Your task to perform on an android device: turn pop-ups on in chrome Image 0: 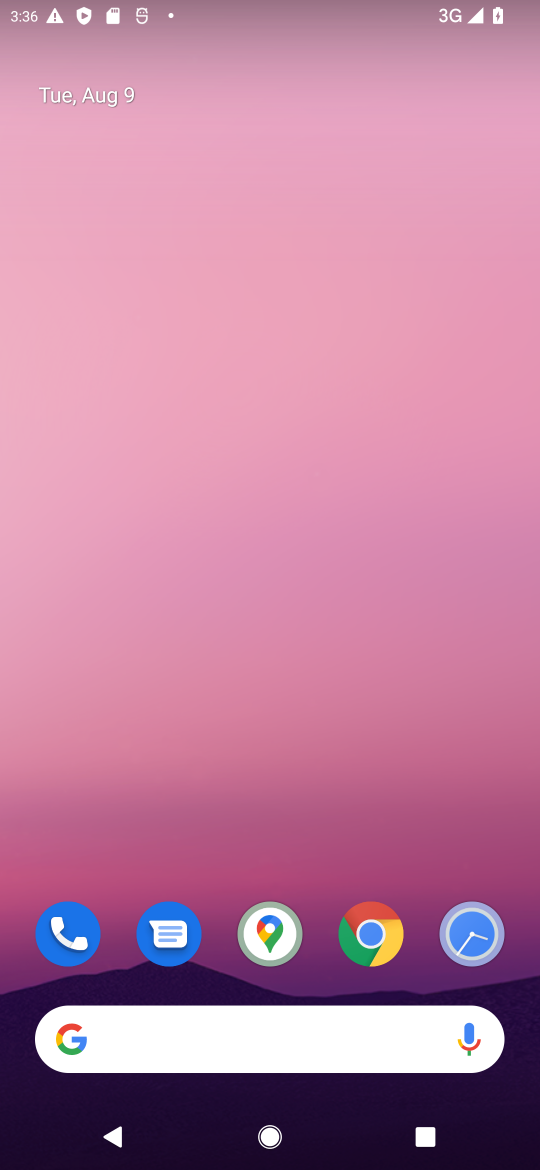
Step 0: click (389, 954)
Your task to perform on an android device: turn pop-ups on in chrome Image 1: 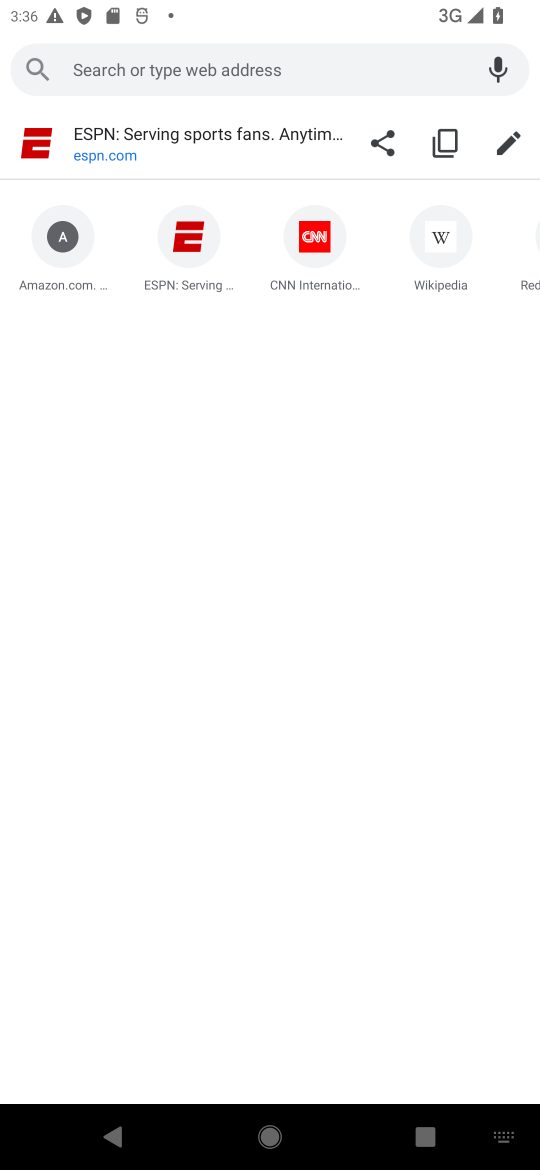
Step 1: task complete